Your task to perform on an android device: Open Yahoo.com Image 0: 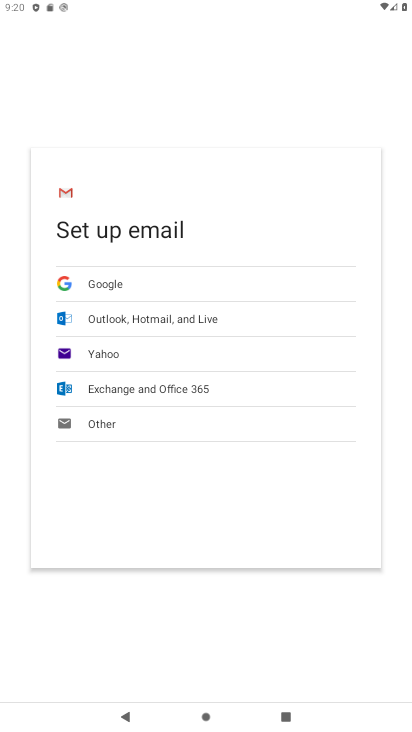
Step 0: drag from (286, 632) to (250, 362)
Your task to perform on an android device: Open Yahoo.com Image 1: 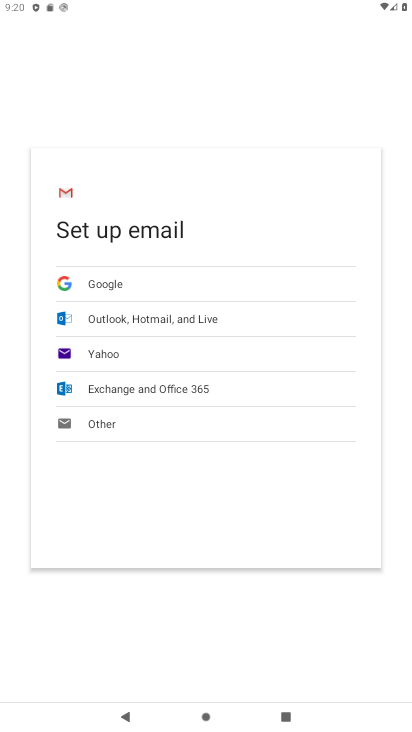
Step 1: press home button
Your task to perform on an android device: Open Yahoo.com Image 2: 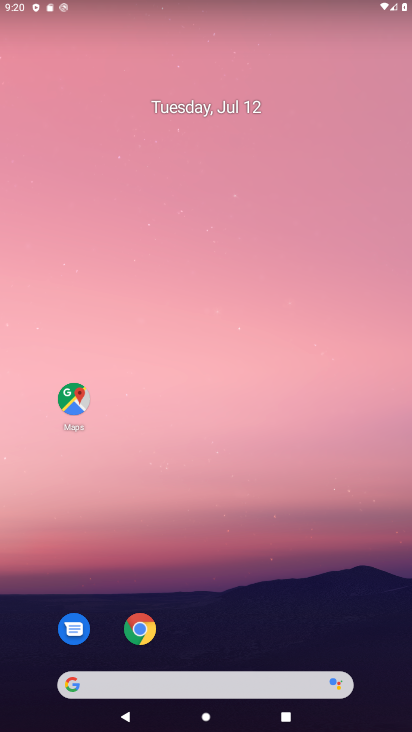
Step 2: drag from (329, 608) to (185, 130)
Your task to perform on an android device: Open Yahoo.com Image 3: 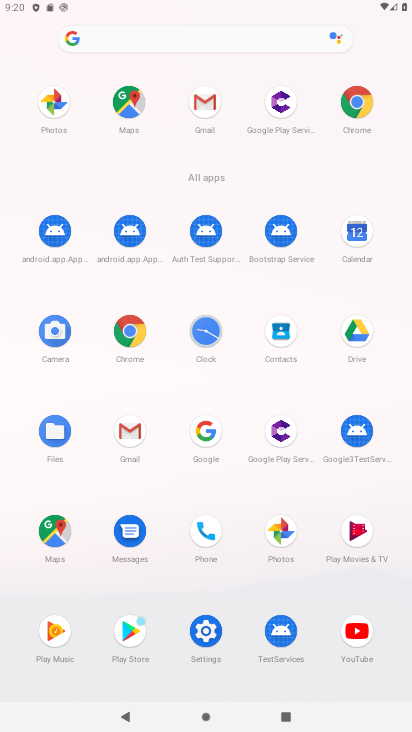
Step 3: click (357, 101)
Your task to perform on an android device: Open Yahoo.com Image 4: 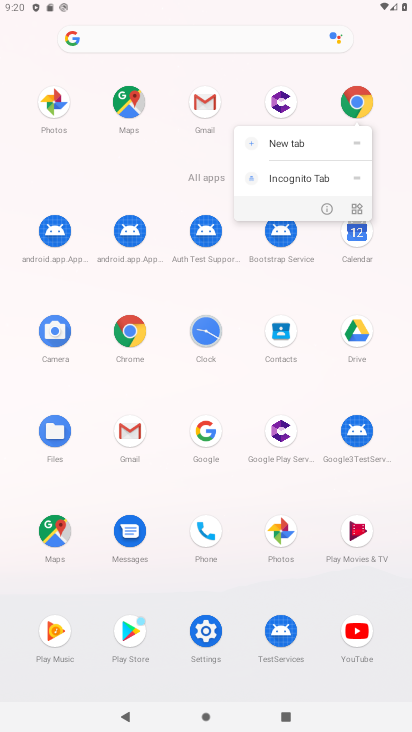
Step 4: click (357, 101)
Your task to perform on an android device: Open Yahoo.com Image 5: 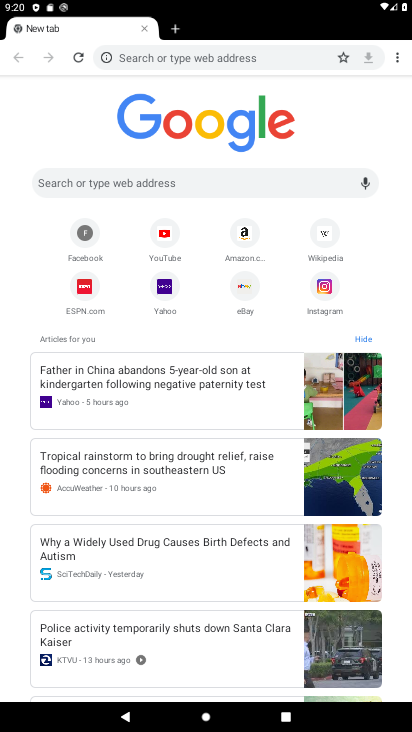
Step 5: click (216, 179)
Your task to perform on an android device: Open Yahoo.com Image 6: 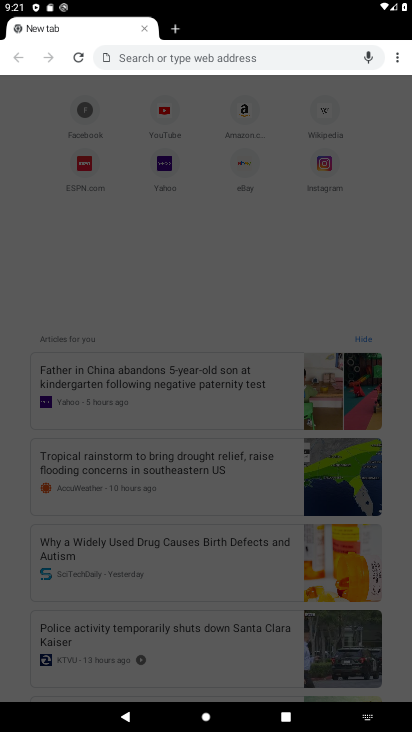
Step 6: type "yahoo.com"
Your task to perform on an android device: Open Yahoo.com Image 7: 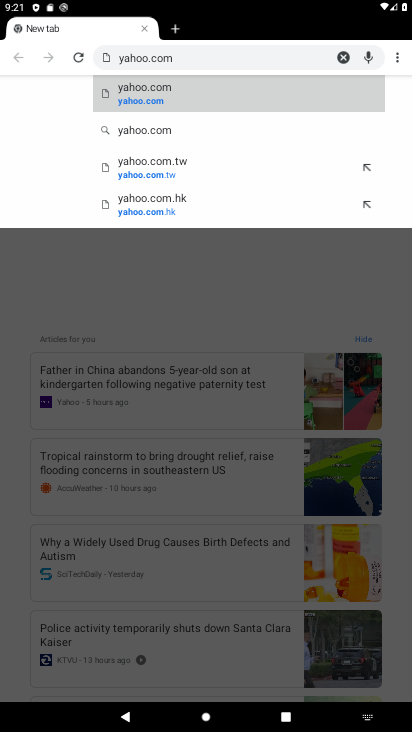
Step 7: click (265, 86)
Your task to perform on an android device: Open Yahoo.com Image 8: 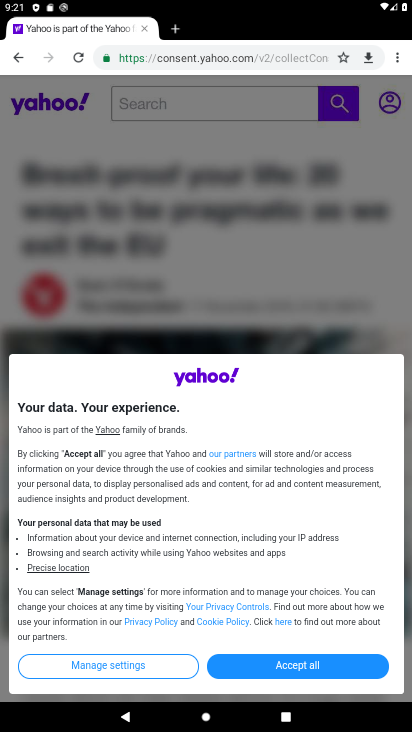
Step 8: task complete